Your task to perform on an android device: Open my contact list Image 0: 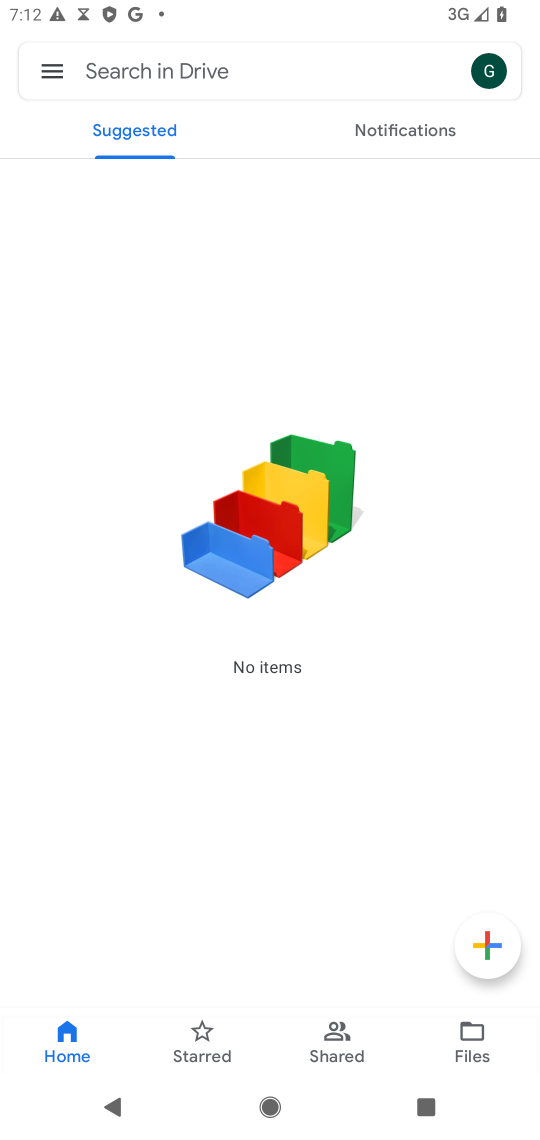
Step 0: press home button
Your task to perform on an android device: Open my contact list Image 1: 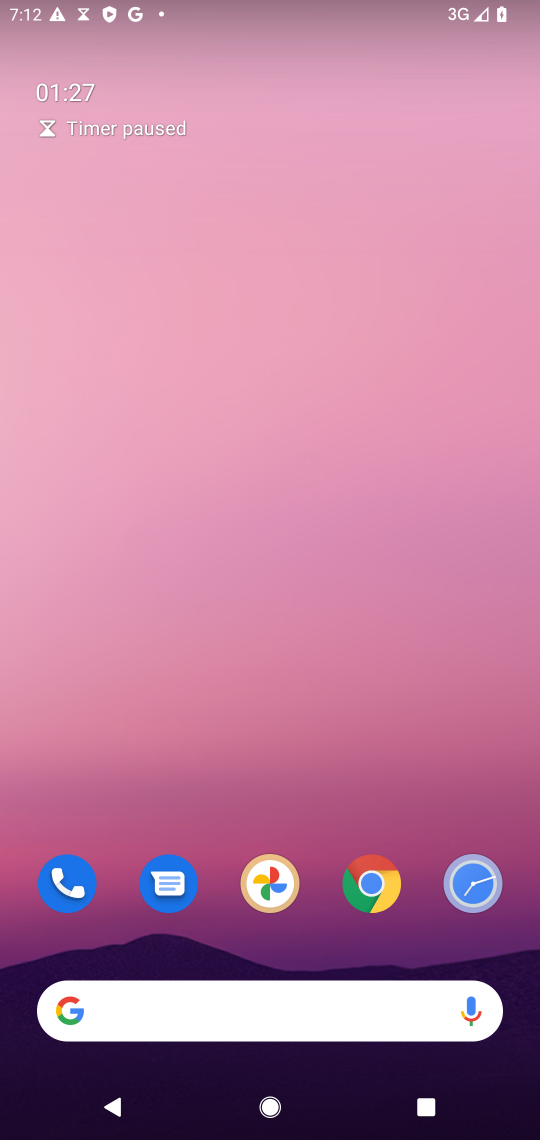
Step 1: drag from (241, 1009) to (389, 489)
Your task to perform on an android device: Open my contact list Image 2: 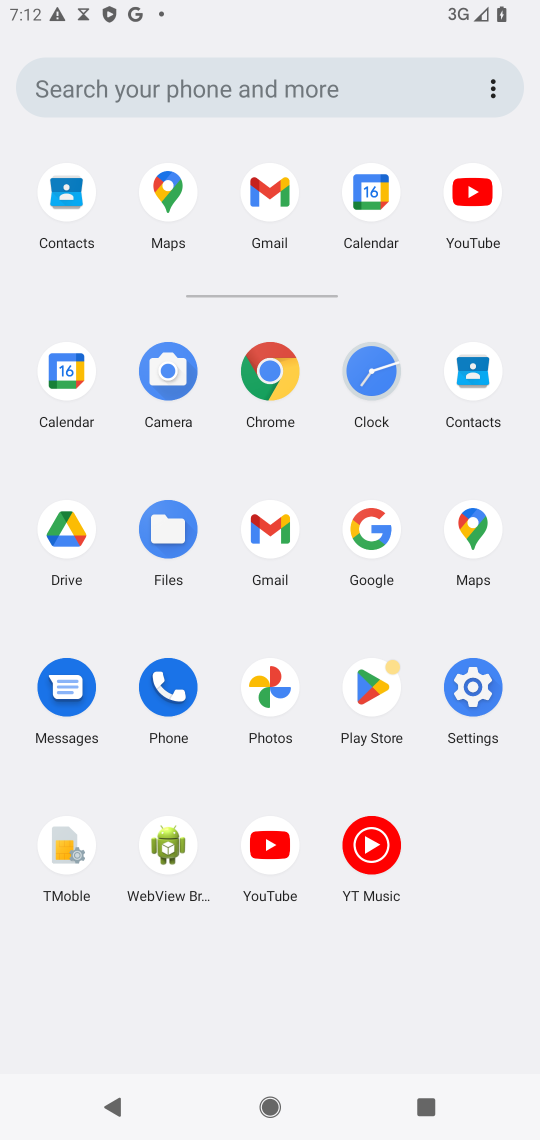
Step 2: click (473, 375)
Your task to perform on an android device: Open my contact list Image 3: 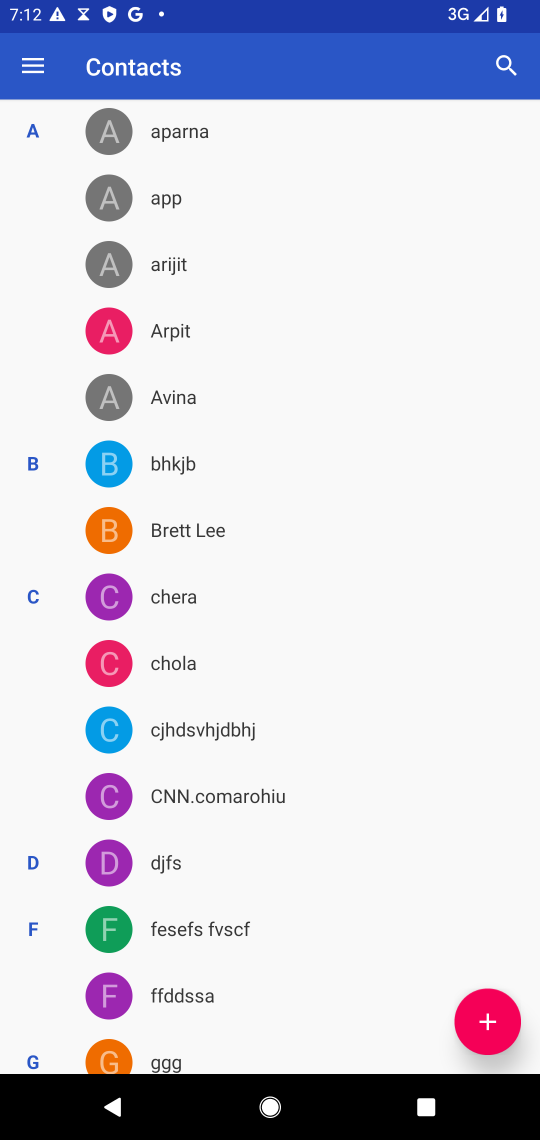
Step 3: task complete